Your task to perform on an android device: Go to sound settings Image 0: 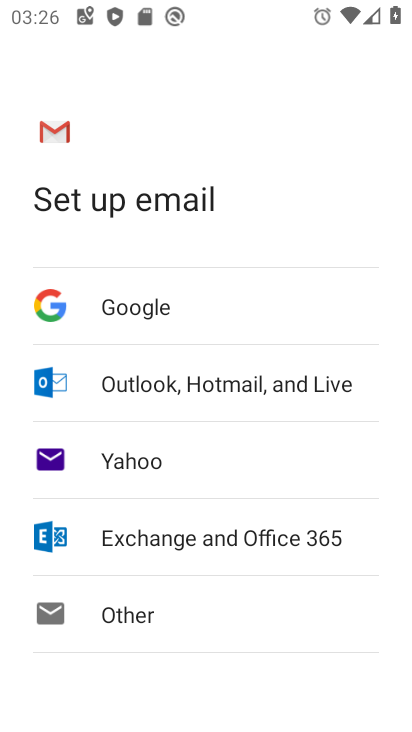
Step 0: press home button
Your task to perform on an android device: Go to sound settings Image 1: 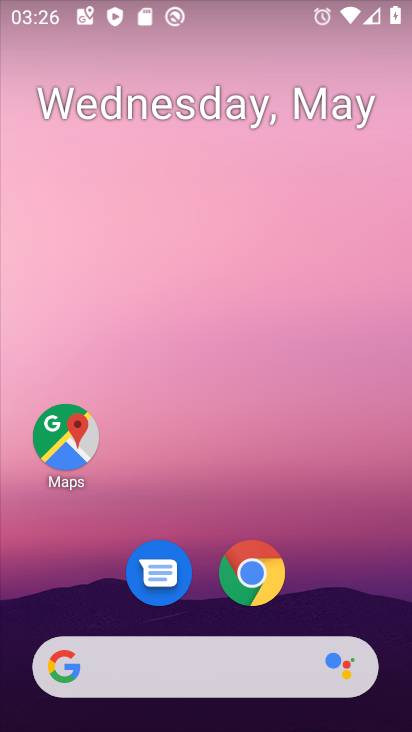
Step 1: drag from (221, 727) to (221, 466)
Your task to perform on an android device: Go to sound settings Image 2: 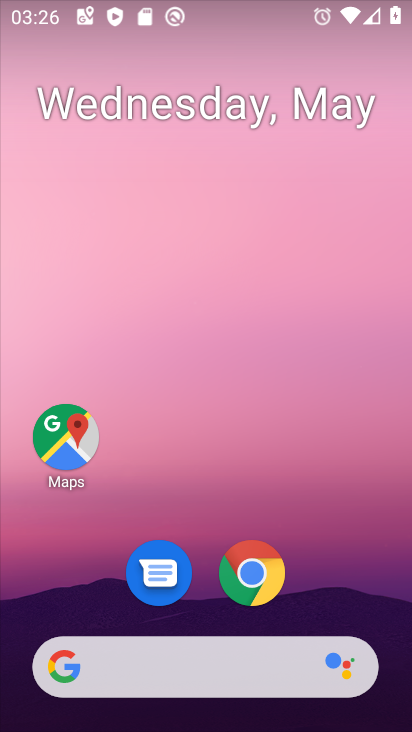
Step 2: drag from (219, 723) to (220, 360)
Your task to perform on an android device: Go to sound settings Image 3: 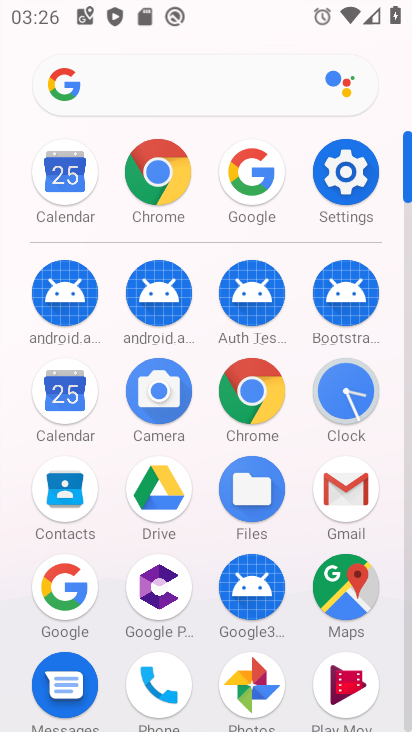
Step 3: click (345, 171)
Your task to perform on an android device: Go to sound settings Image 4: 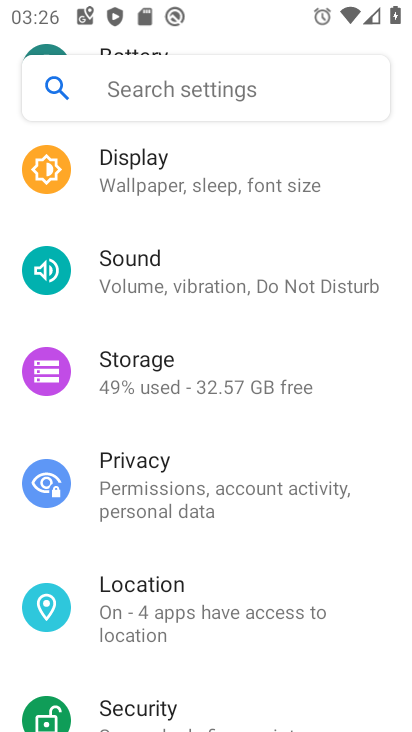
Step 4: click (154, 272)
Your task to perform on an android device: Go to sound settings Image 5: 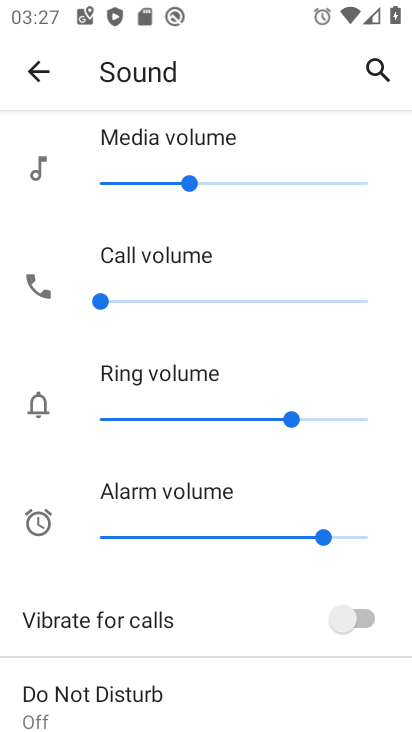
Step 5: task complete